Your task to perform on an android device: Go to Google Image 0: 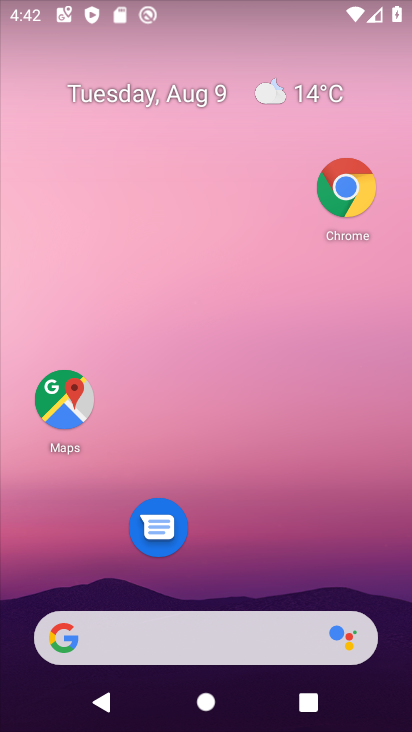
Step 0: click (106, 642)
Your task to perform on an android device: Go to Google Image 1: 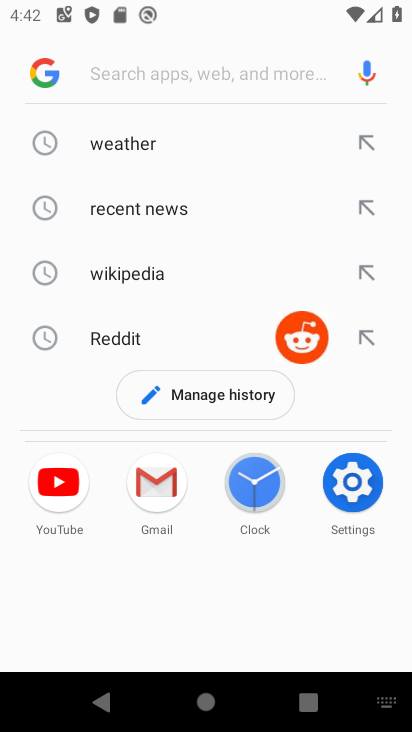
Step 1: click (106, 642)
Your task to perform on an android device: Go to Google Image 2: 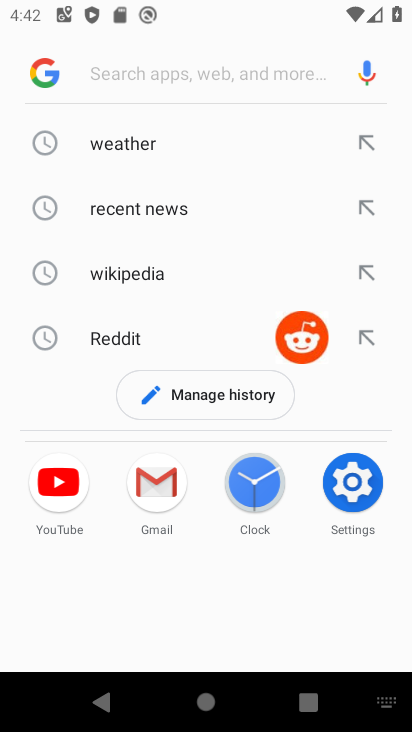
Step 2: task complete